Your task to perform on an android device: toggle show notifications on the lock screen Image 0: 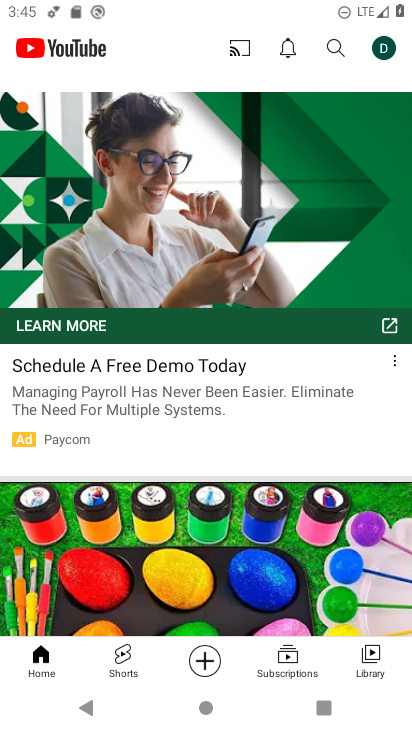
Step 0: press home button
Your task to perform on an android device: toggle show notifications on the lock screen Image 1: 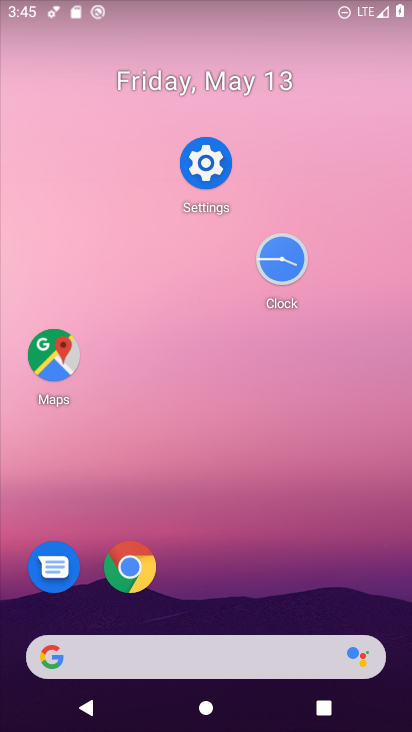
Step 1: click (276, 558)
Your task to perform on an android device: toggle show notifications on the lock screen Image 2: 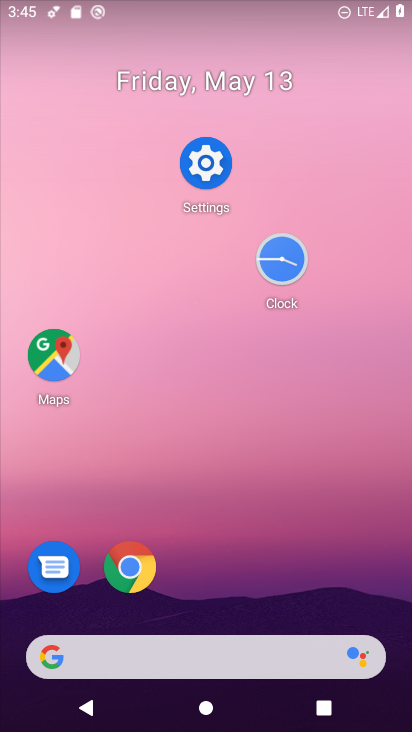
Step 2: click (195, 154)
Your task to perform on an android device: toggle show notifications on the lock screen Image 3: 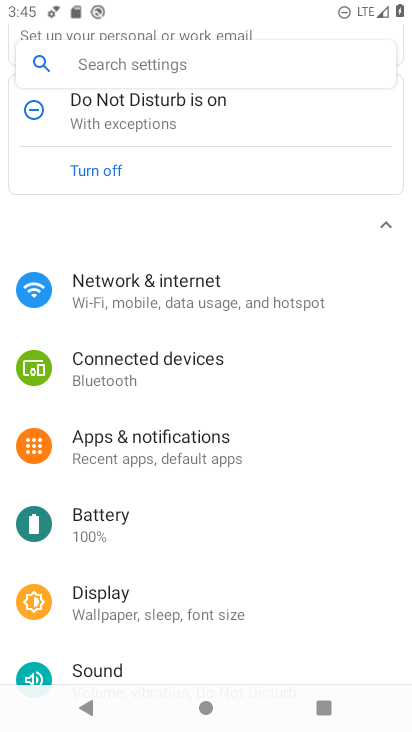
Step 3: click (242, 464)
Your task to perform on an android device: toggle show notifications on the lock screen Image 4: 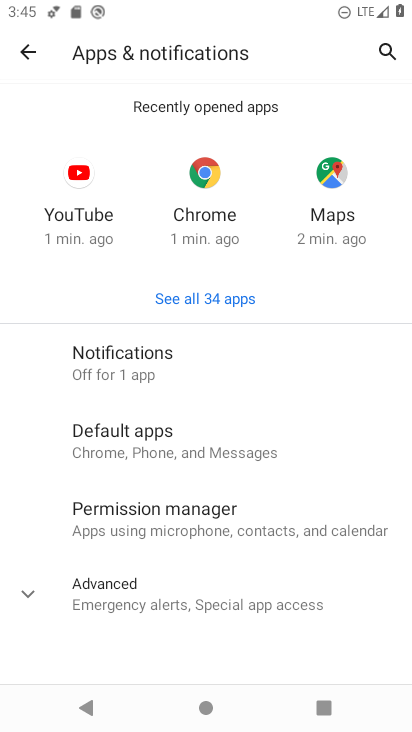
Step 4: drag from (300, 515) to (324, 291)
Your task to perform on an android device: toggle show notifications on the lock screen Image 5: 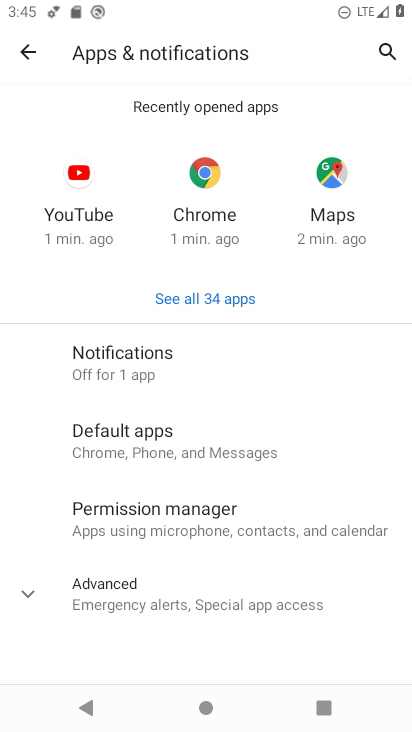
Step 5: click (181, 591)
Your task to perform on an android device: toggle show notifications on the lock screen Image 6: 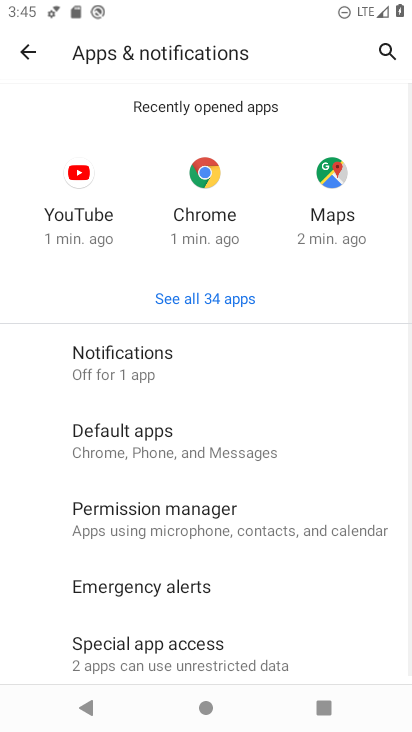
Step 6: click (250, 364)
Your task to perform on an android device: toggle show notifications on the lock screen Image 7: 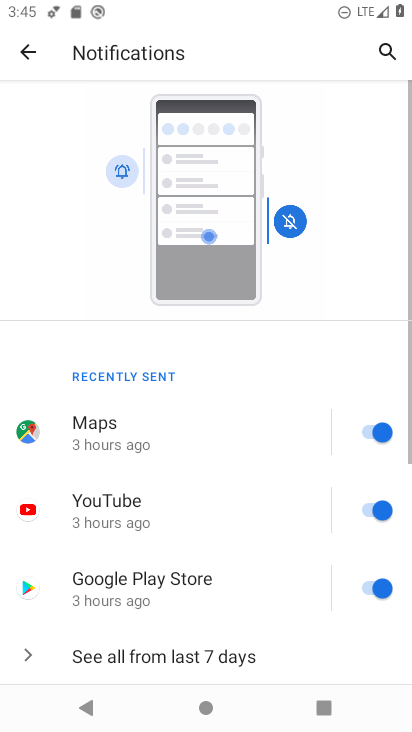
Step 7: drag from (178, 552) to (262, 243)
Your task to perform on an android device: toggle show notifications on the lock screen Image 8: 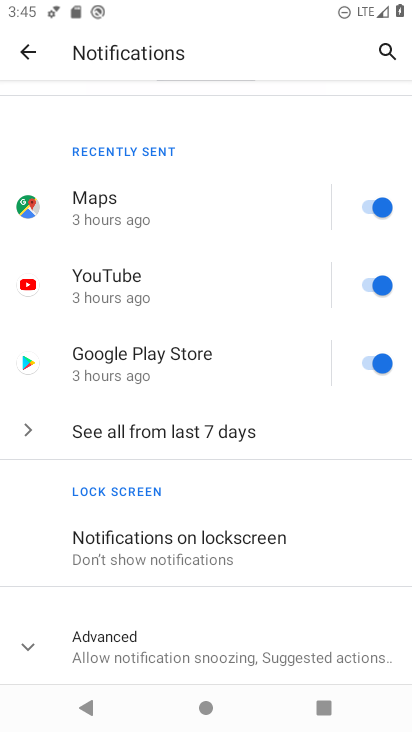
Step 8: click (257, 527)
Your task to perform on an android device: toggle show notifications on the lock screen Image 9: 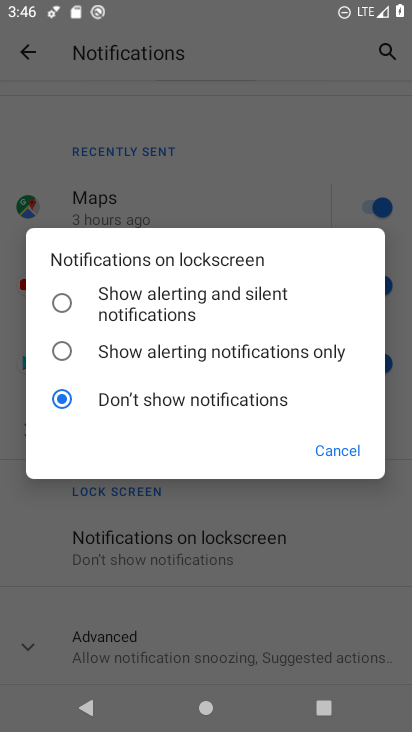
Step 9: click (172, 343)
Your task to perform on an android device: toggle show notifications on the lock screen Image 10: 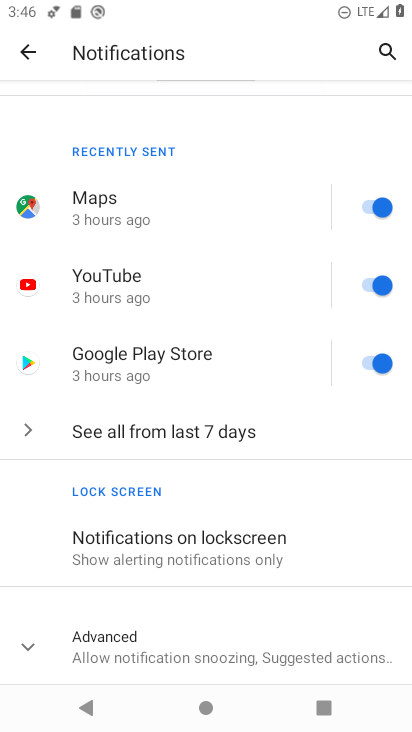
Step 10: task complete